Your task to perform on an android device: open device folders in google photos Image 0: 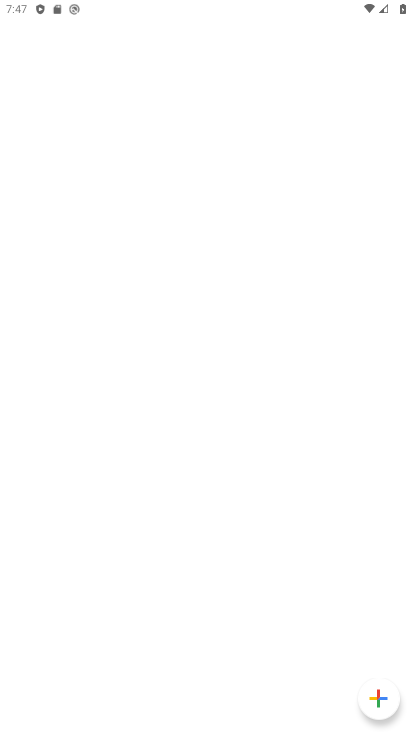
Step 0: drag from (331, 622) to (252, 142)
Your task to perform on an android device: open device folders in google photos Image 1: 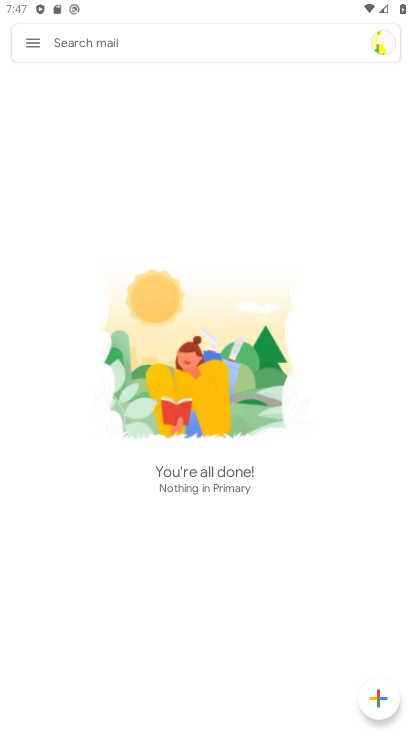
Step 1: press home button
Your task to perform on an android device: open device folders in google photos Image 2: 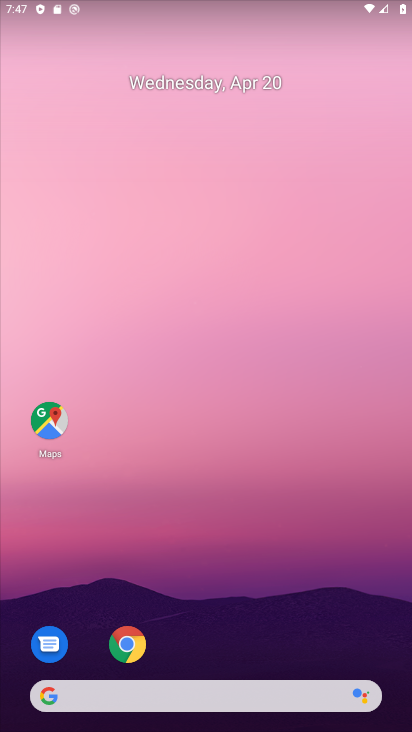
Step 2: drag from (335, 631) to (235, 26)
Your task to perform on an android device: open device folders in google photos Image 3: 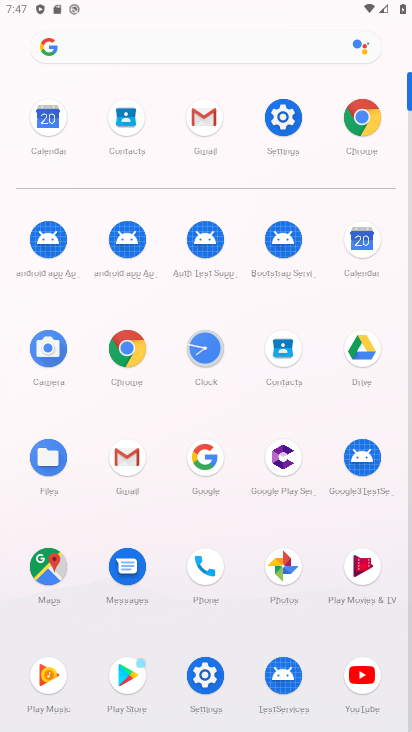
Step 3: click (280, 564)
Your task to perform on an android device: open device folders in google photos Image 4: 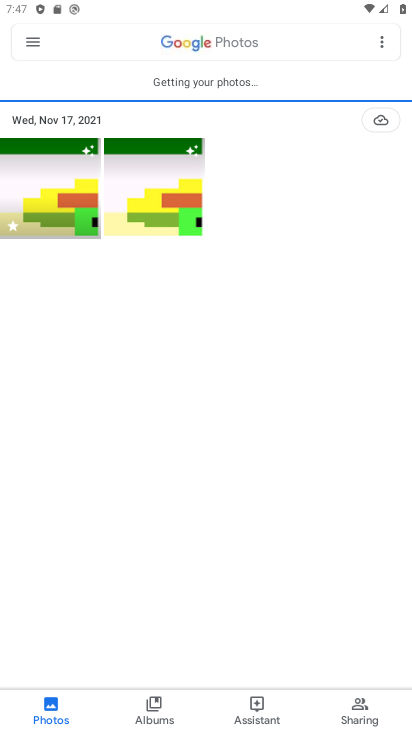
Step 4: click (30, 41)
Your task to perform on an android device: open device folders in google photos Image 5: 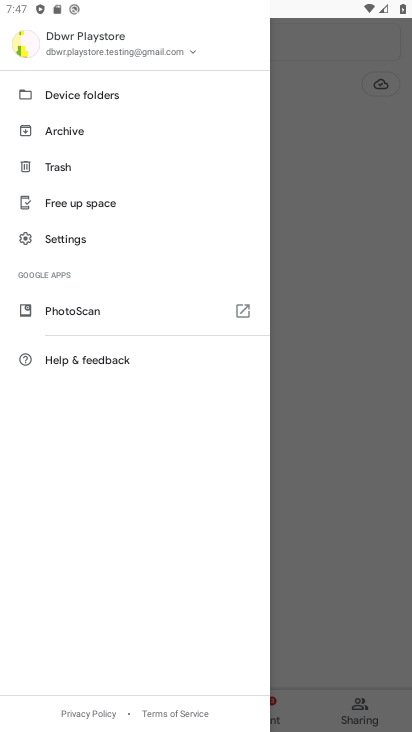
Step 5: click (101, 97)
Your task to perform on an android device: open device folders in google photos Image 6: 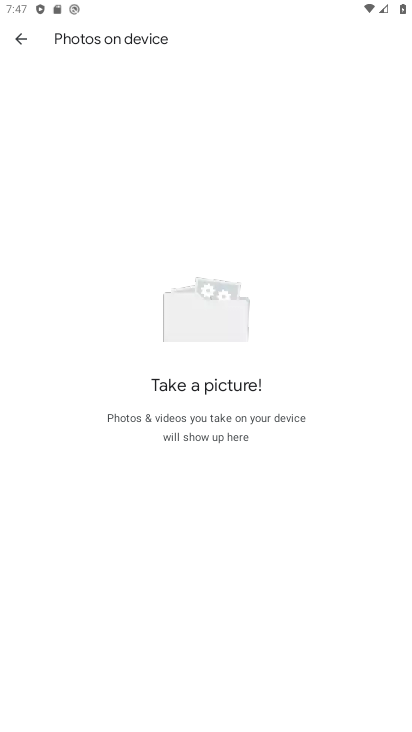
Step 6: task complete